Your task to perform on an android device: toggle data saver in the chrome app Image 0: 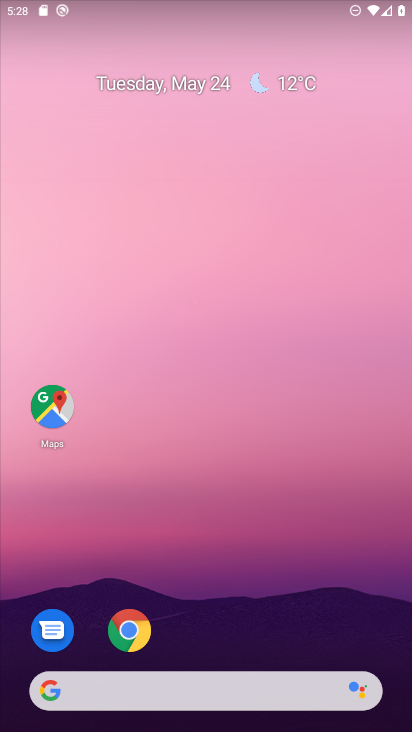
Step 0: click (128, 630)
Your task to perform on an android device: toggle data saver in the chrome app Image 1: 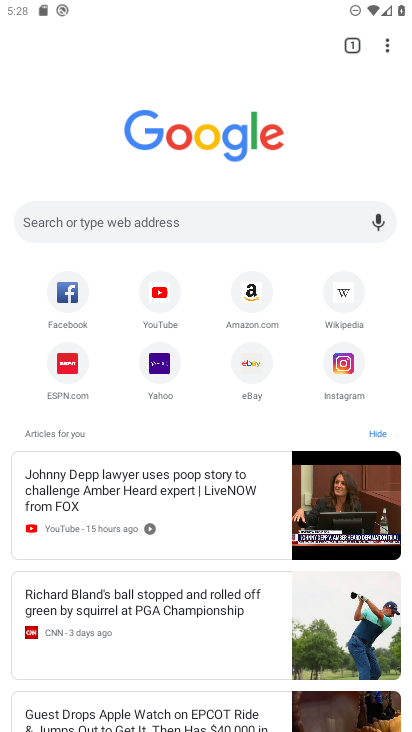
Step 1: click (388, 48)
Your task to perform on an android device: toggle data saver in the chrome app Image 2: 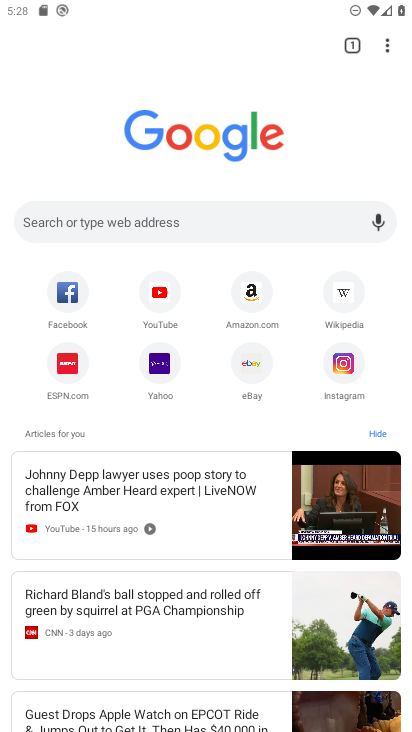
Step 2: click (385, 45)
Your task to perform on an android device: toggle data saver in the chrome app Image 3: 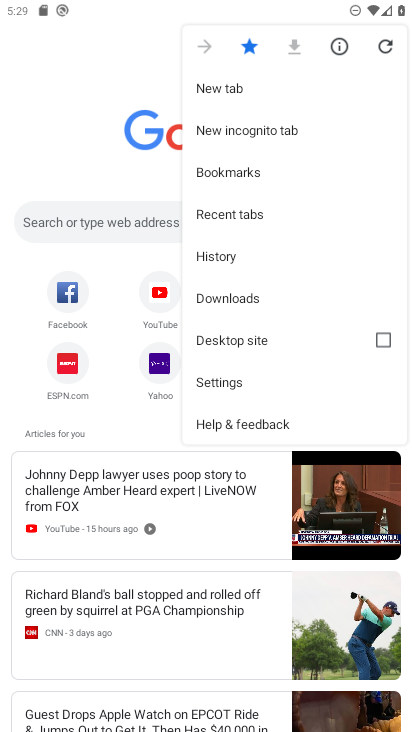
Step 3: click (227, 379)
Your task to perform on an android device: toggle data saver in the chrome app Image 4: 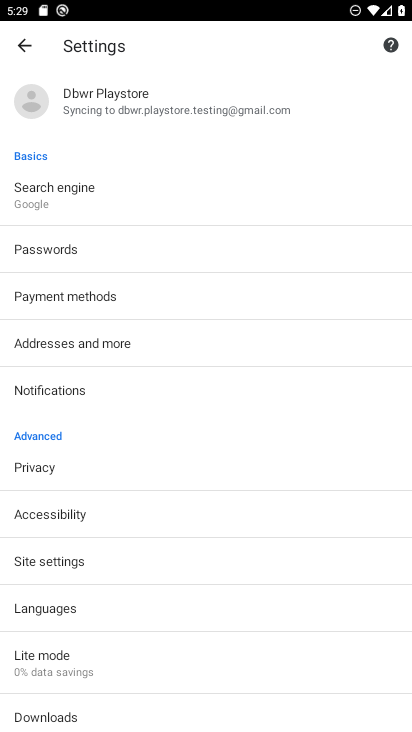
Step 4: click (53, 663)
Your task to perform on an android device: toggle data saver in the chrome app Image 5: 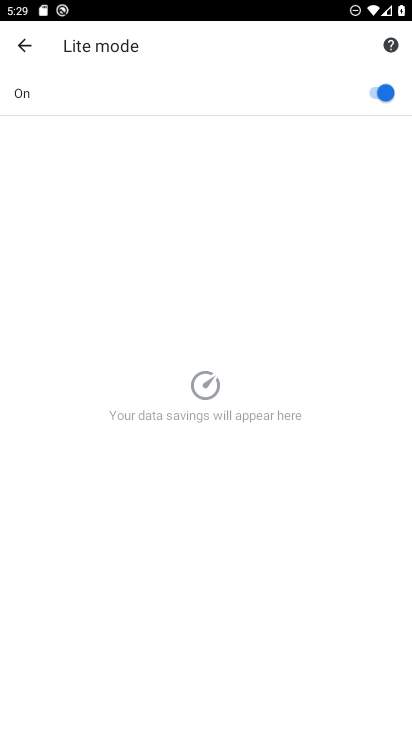
Step 5: click (382, 102)
Your task to perform on an android device: toggle data saver in the chrome app Image 6: 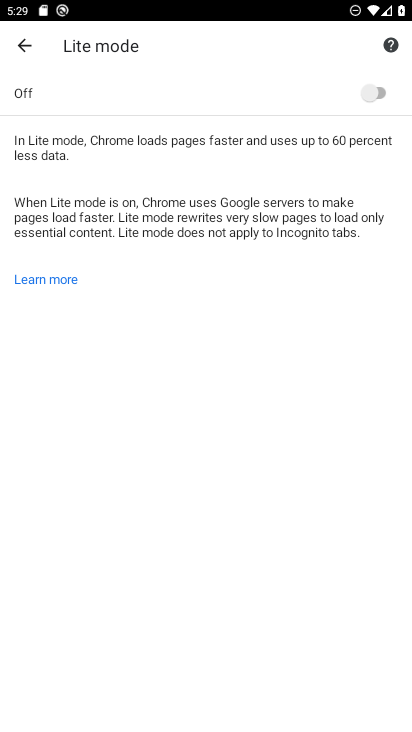
Step 6: task complete